Your task to perform on an android device: open app "WhatsApp Messenger" Image 0: 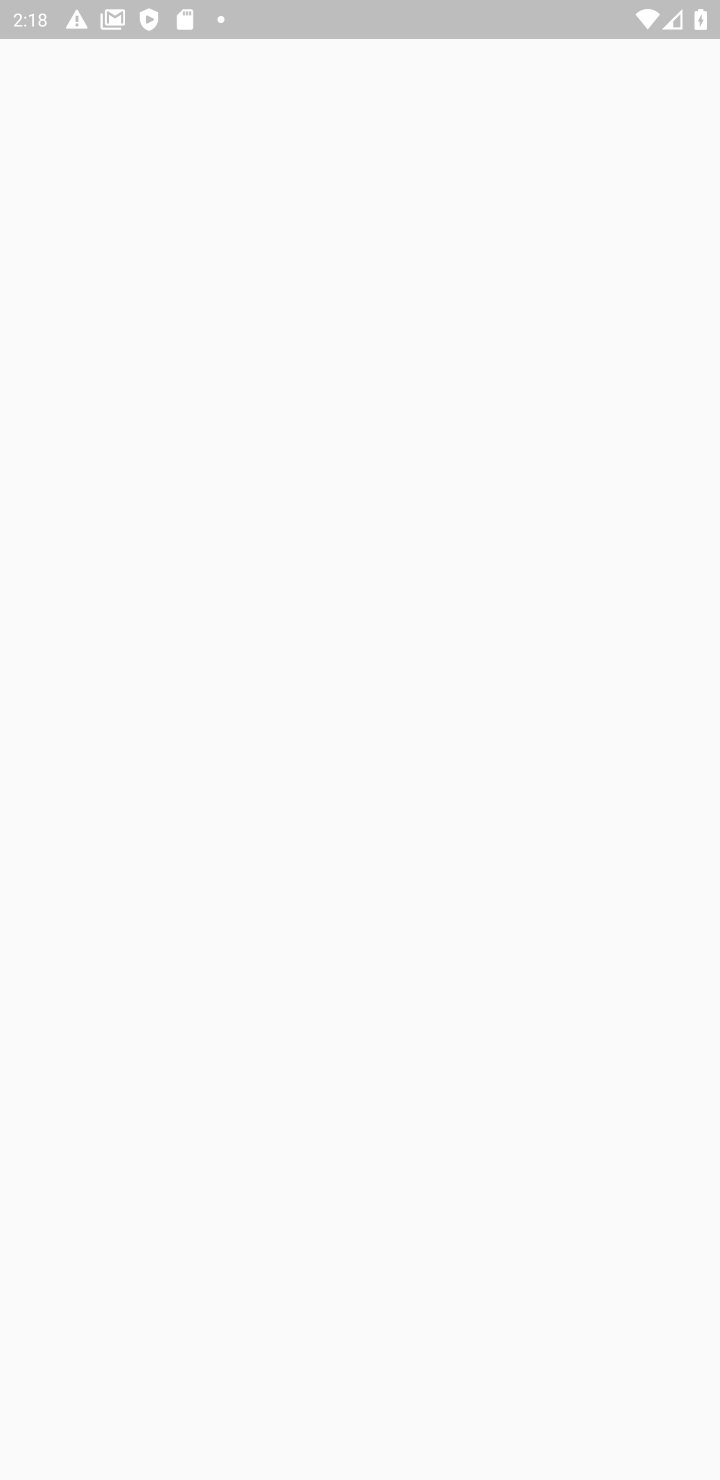
Step 0: press back button
Your task to perform on an android device: open app "WhatsApp Messenger" Image 1: 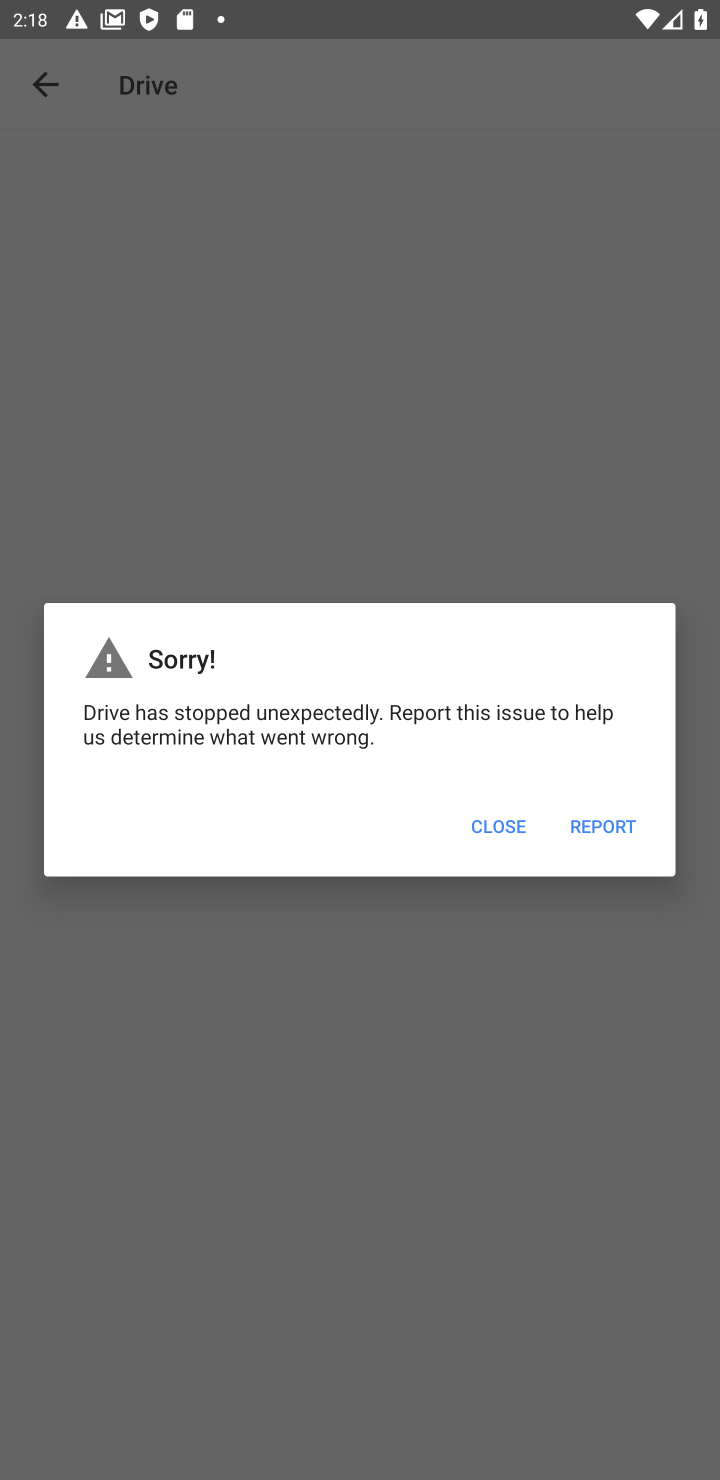
Step 1: press home button
Your task to perform on an android device: open app "WhatsApp Messenger" Image 2: 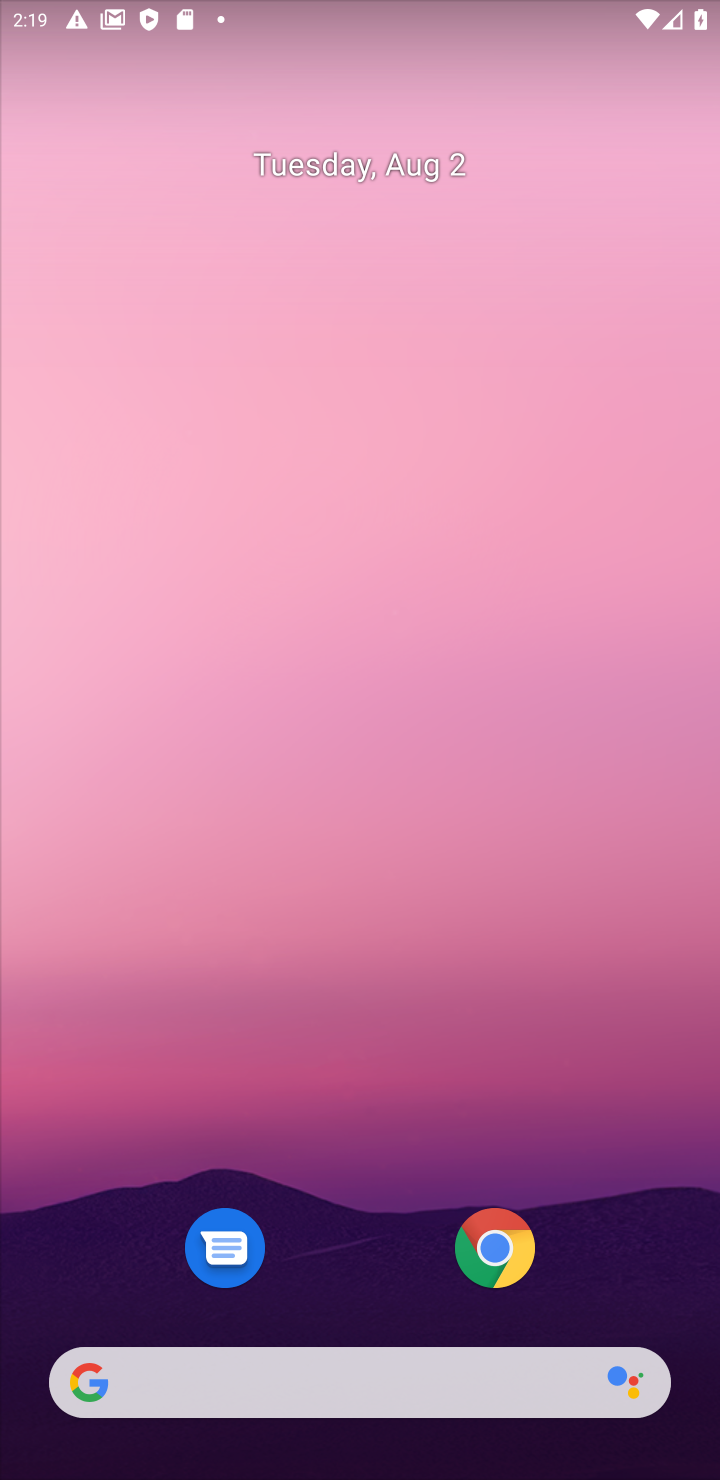
Step 2: drag from (330, 1230) to (340, 247)
Your task to perform on an android device: open app "WhatsApp Messenger" Image 3: 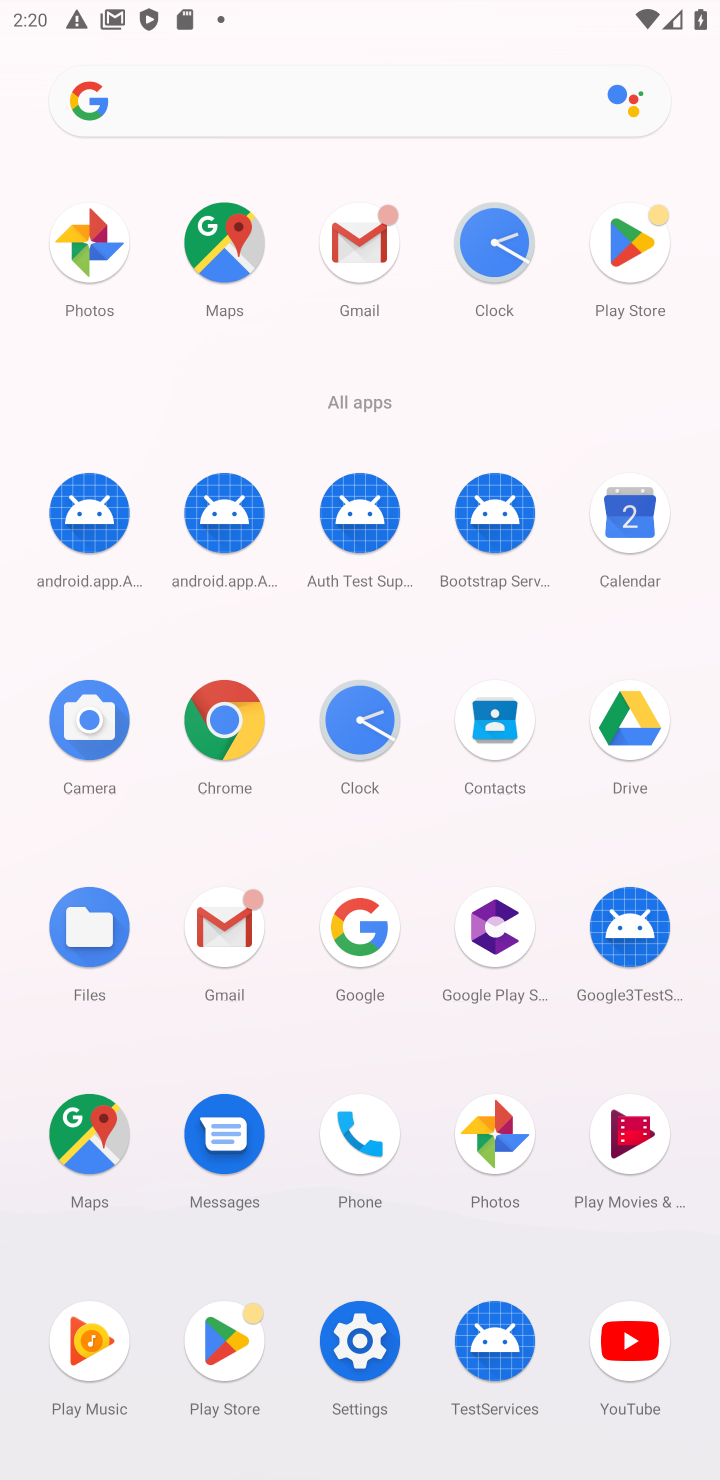
Step 3: click (221, 1354)
Your task to perform on an android device: open app "WhatsApp Messenger" Image 4: 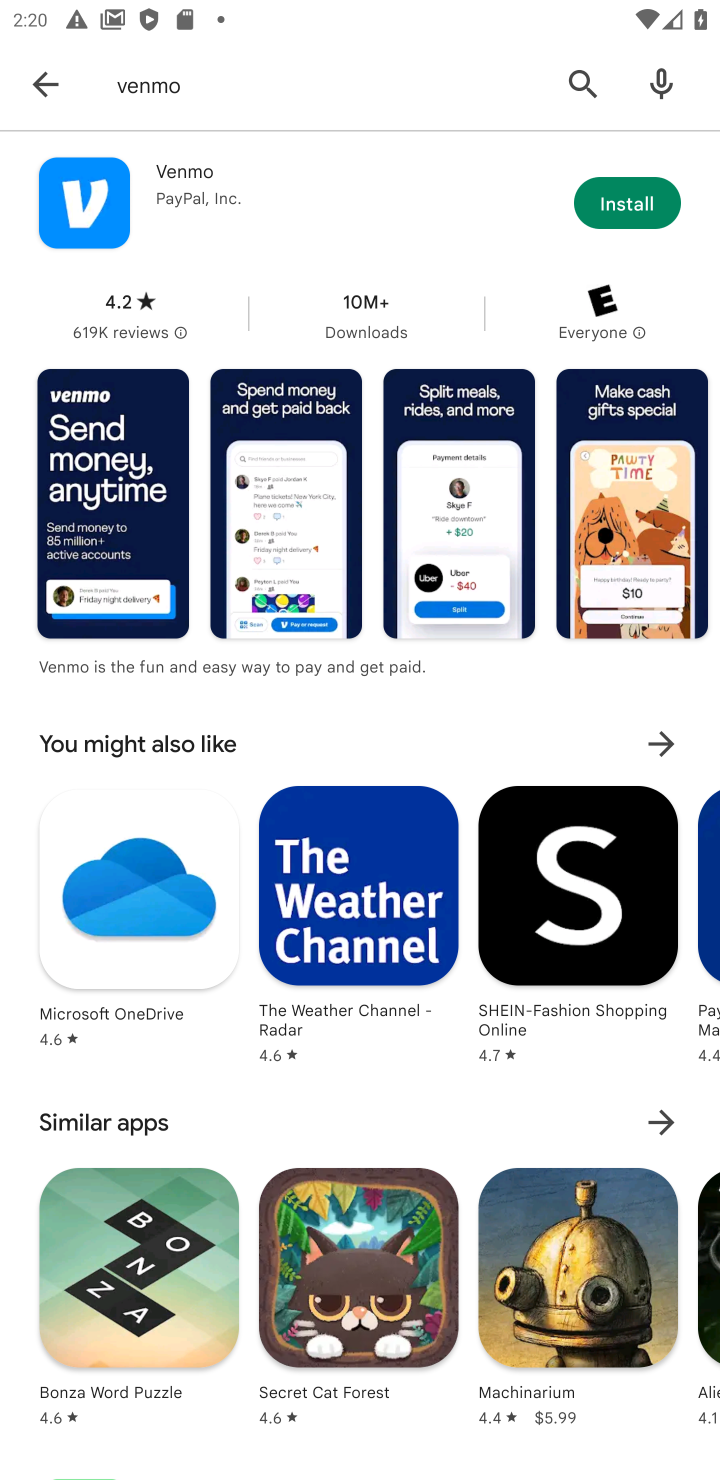
Step 4: click (26, 94)
Your task to perform on an android device: open app "WhatsApp Messenger" Image 5: 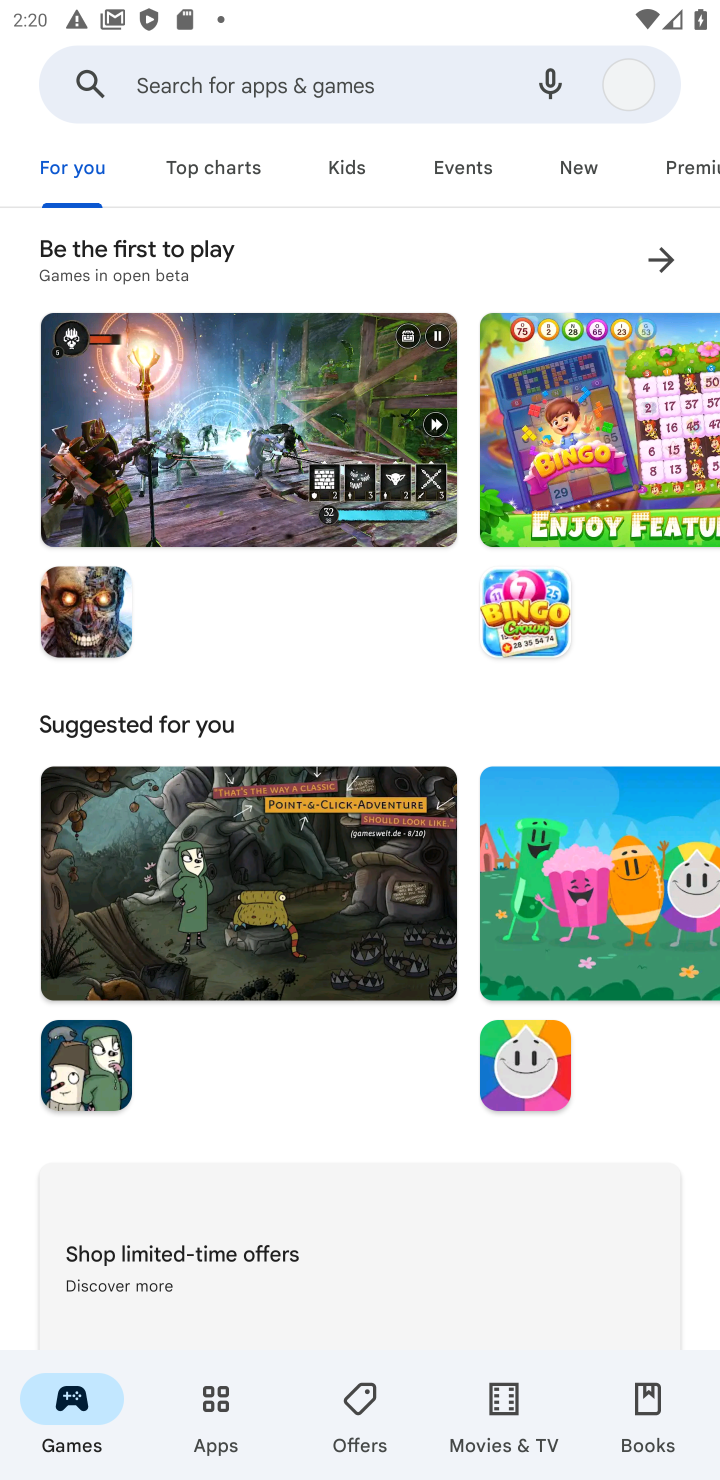
Step 5: click (163, 96)
Your task to perform on an android device: open app "WhatsApp Messenger" Image 6: 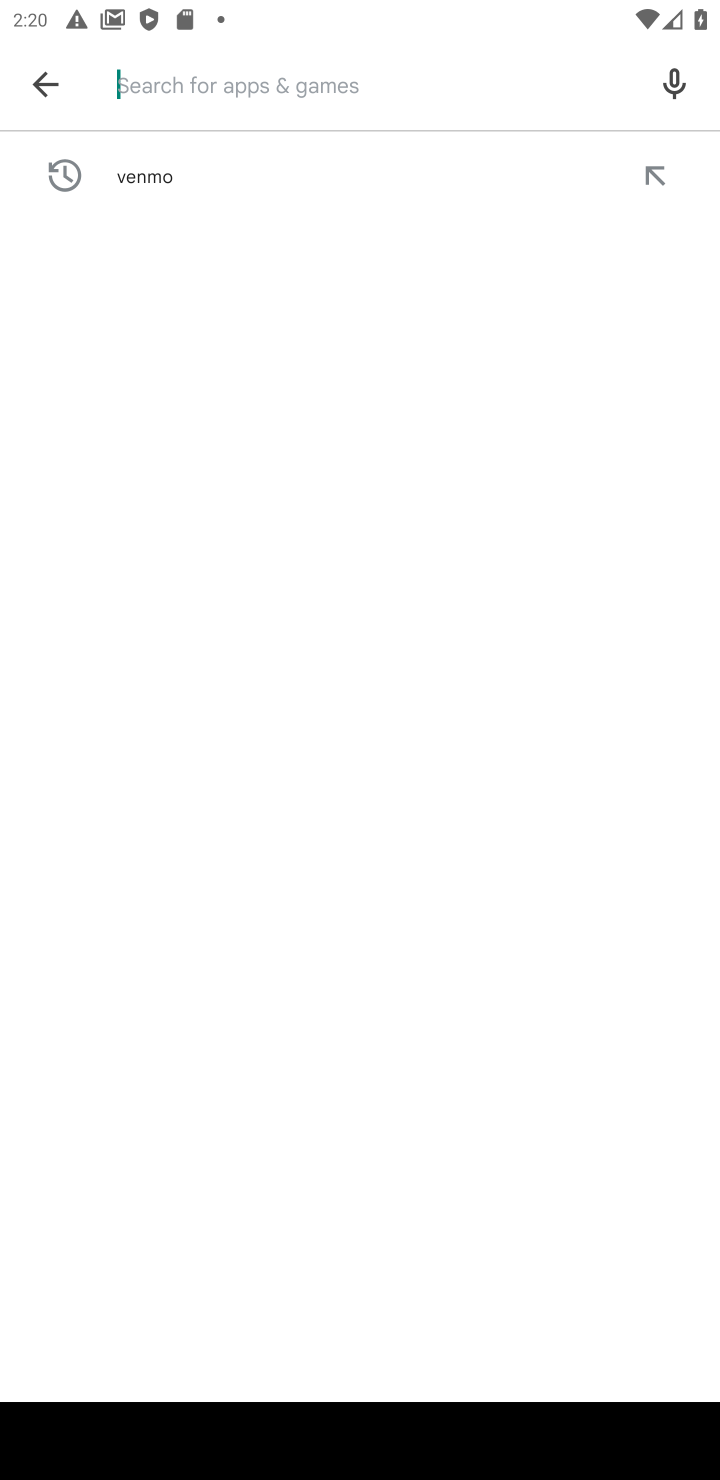
Step 6: type "WhatsApp Messenge"
Your task to perform on an android device: open app "WhatsApp Messenger" Image 7: 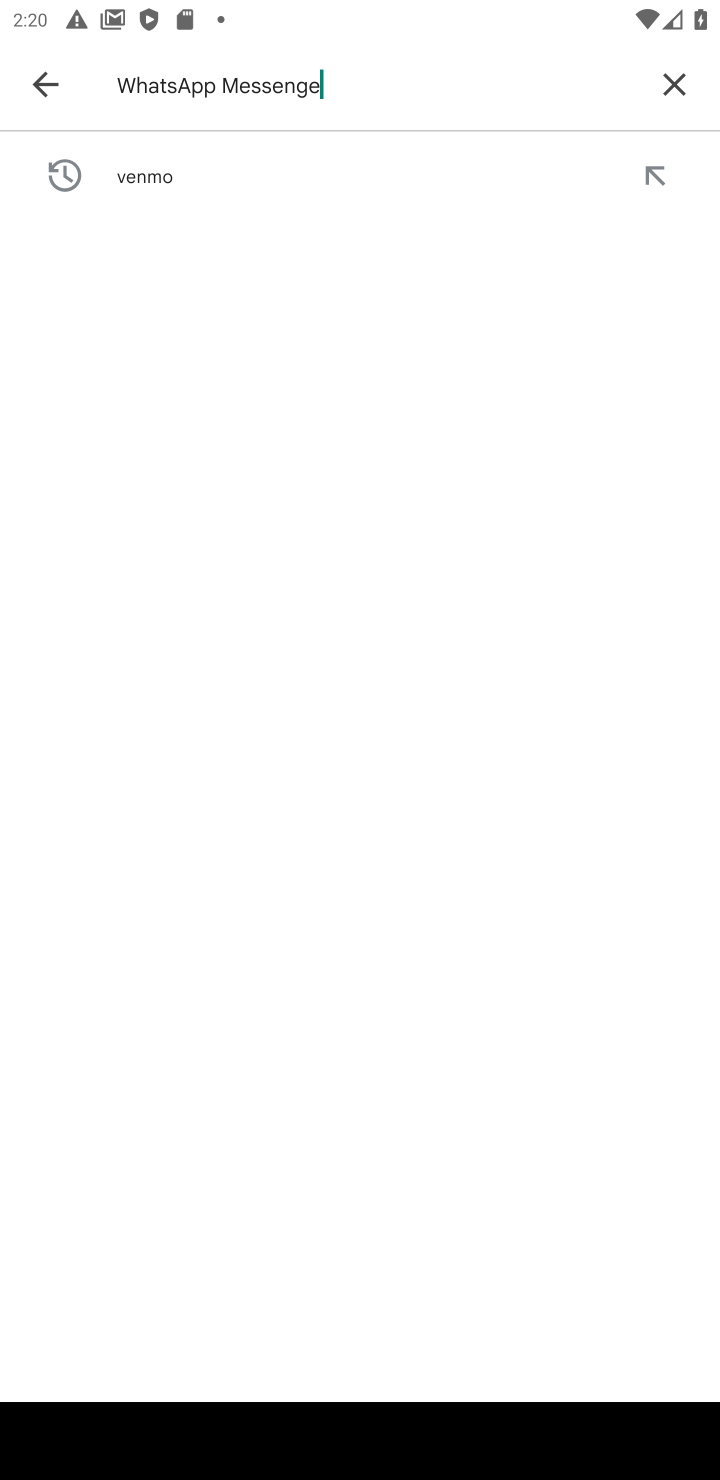
Step 7: type ""
Your task to perform on an android device: open app "WhatsApp Messenger" Image 8: 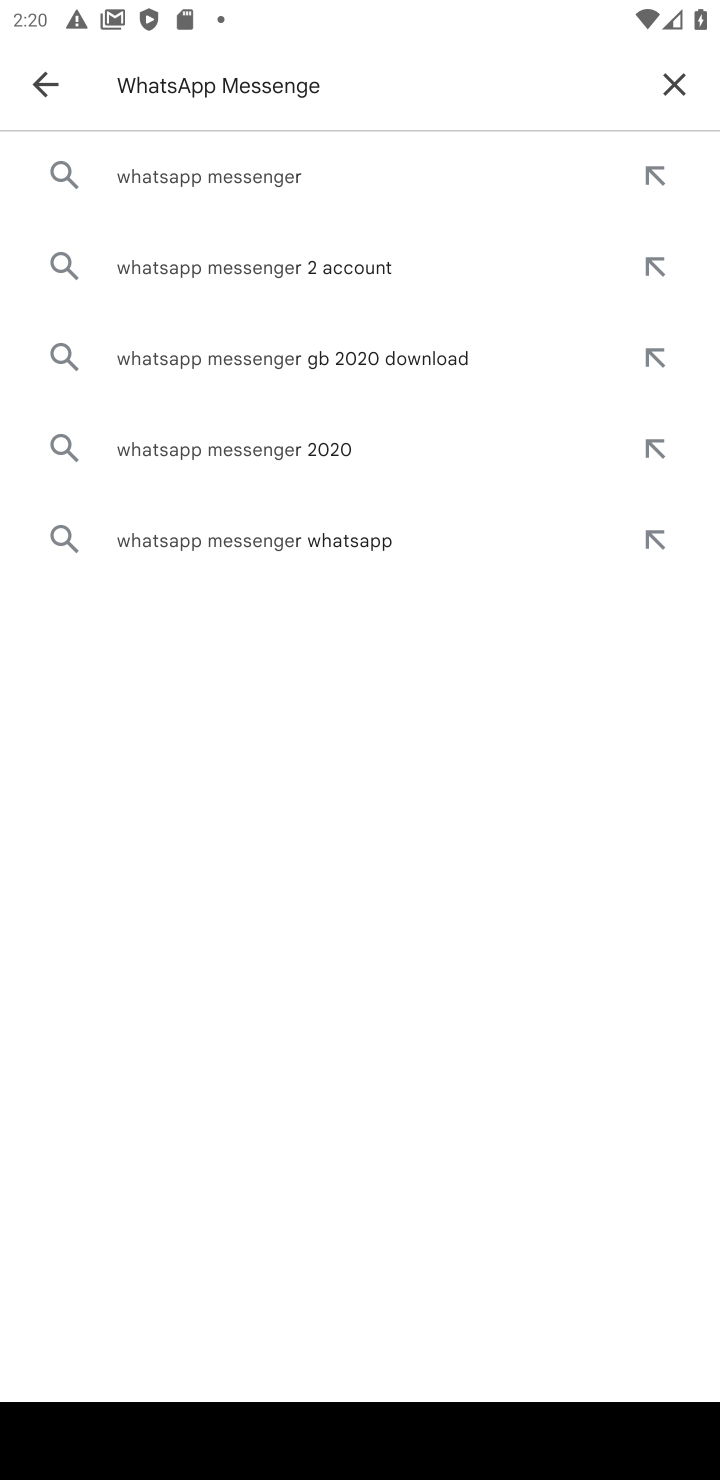
Step 8: click (334, 190)
Your task to perform on an android device: open app "WhatsApp Messenger" Image 9: 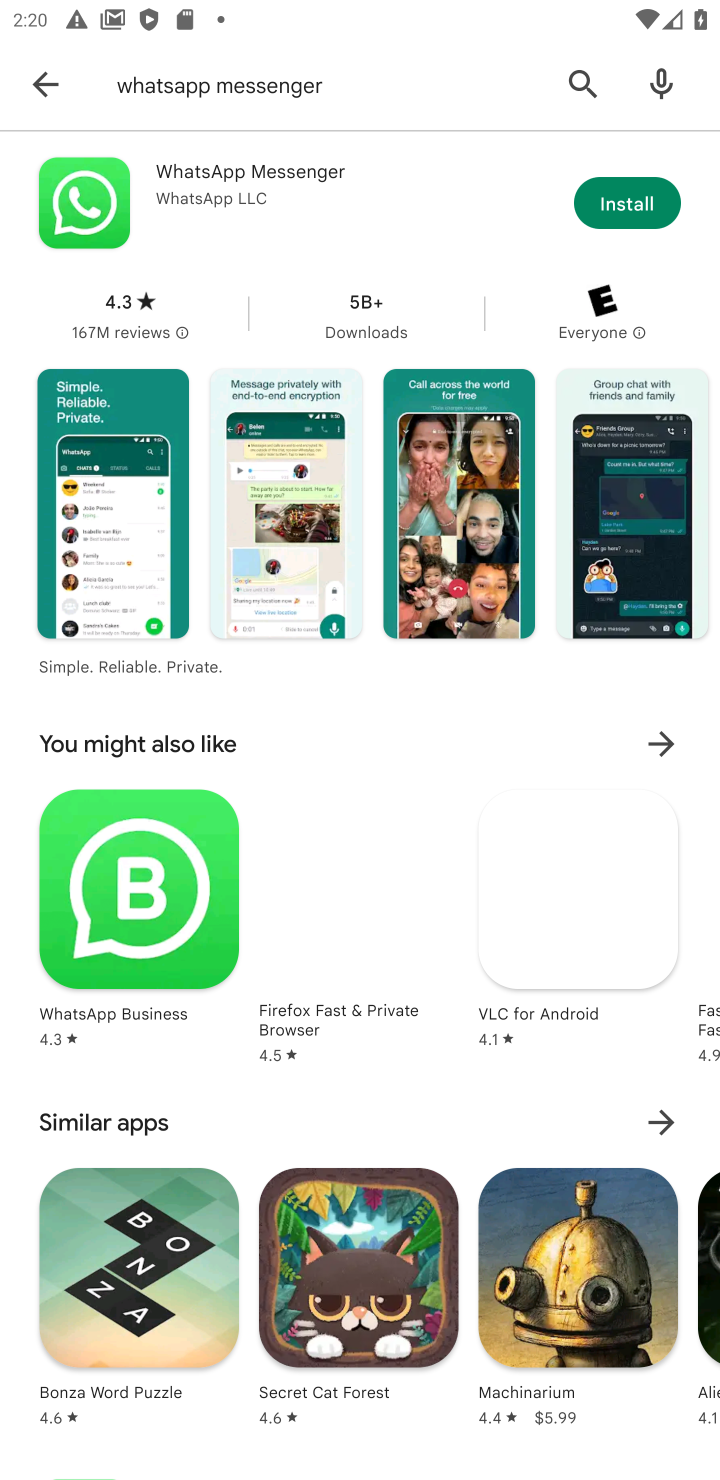
Step 9: click (656, 212)
Your task to perform on an android device: open app "WhatsApp Messenger" Image 10: 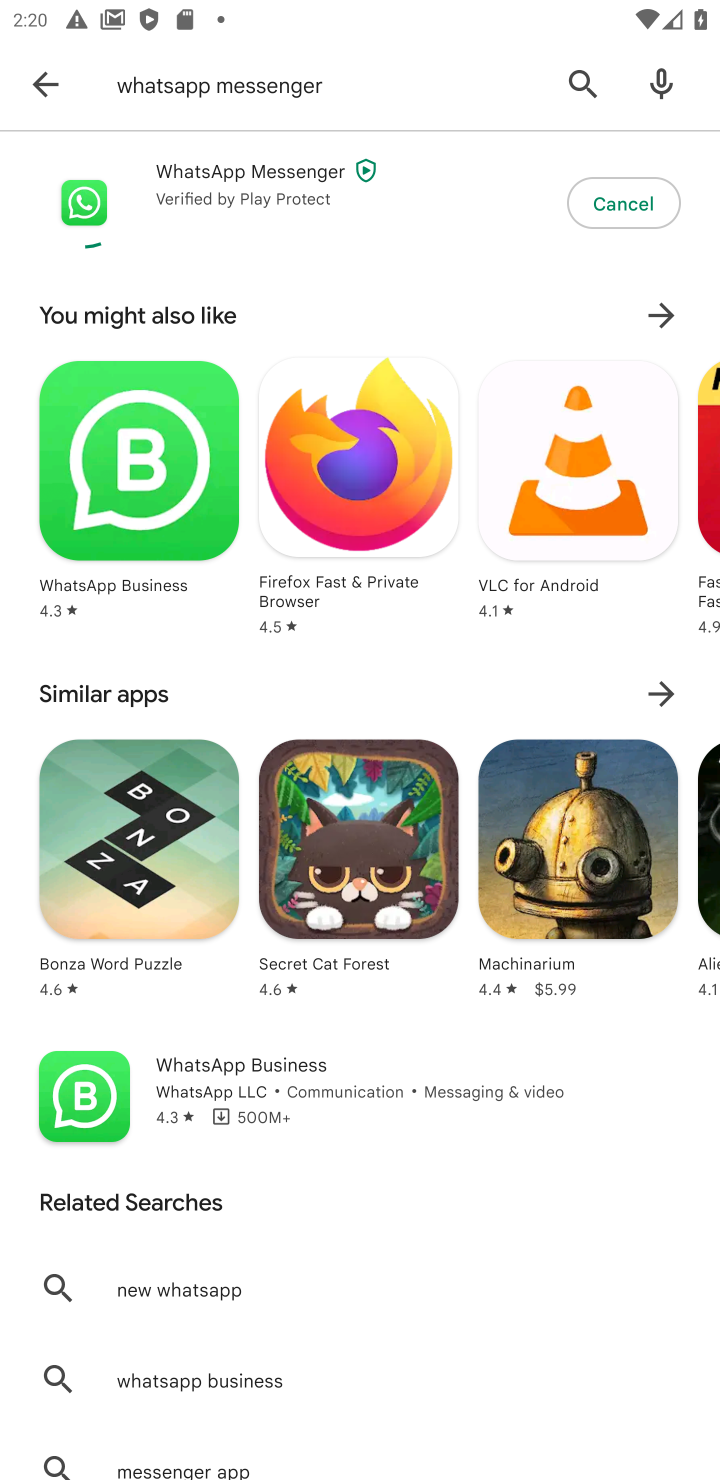
Step 10: click (650, 207)
Your task to perform on an android device: open app "WhatsApp Messenger" Image 11: 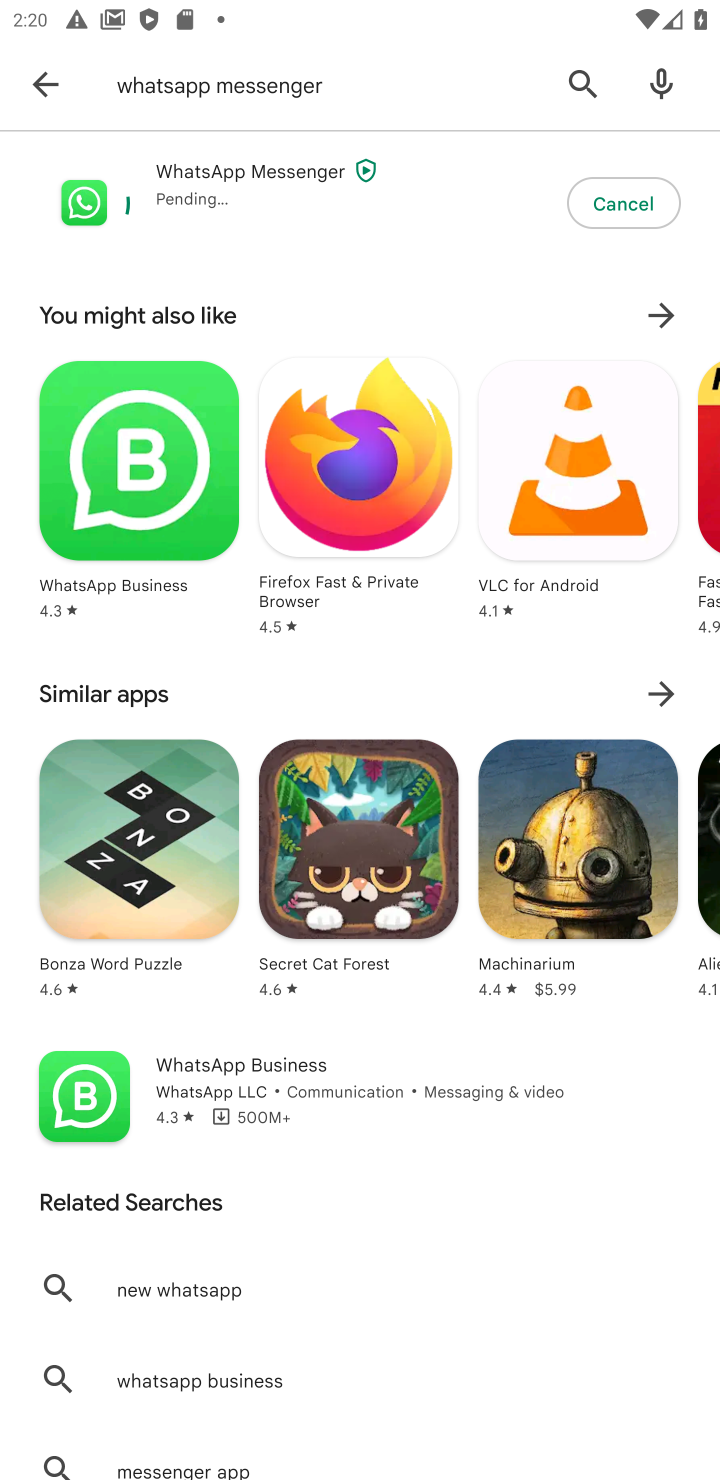
Step 11: click (652, 226)
Your task to perform on an android device: open app "WhatsApp Messenger" Image 12: 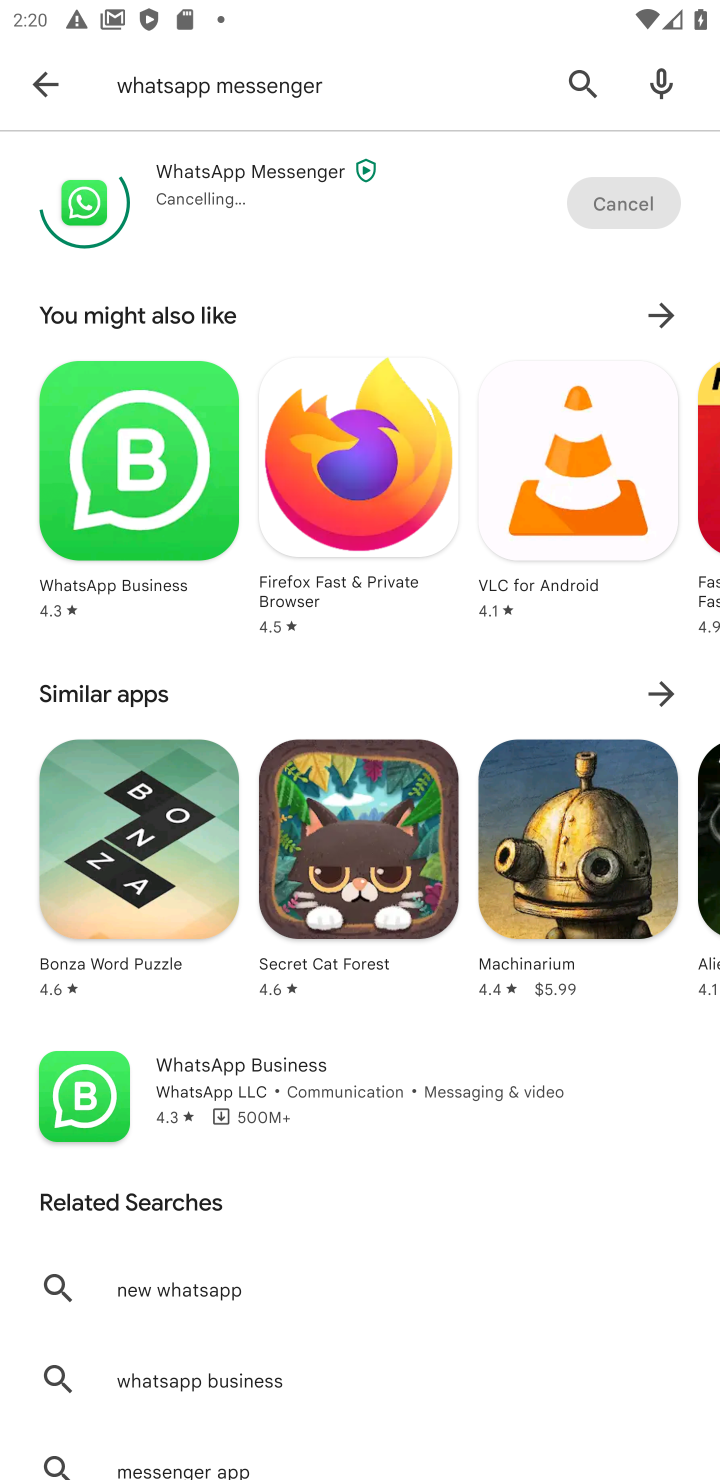
Step 12: click (650, 209)
Your task to perform on an android device: open app "WhatsApp Messenger" Image 13: 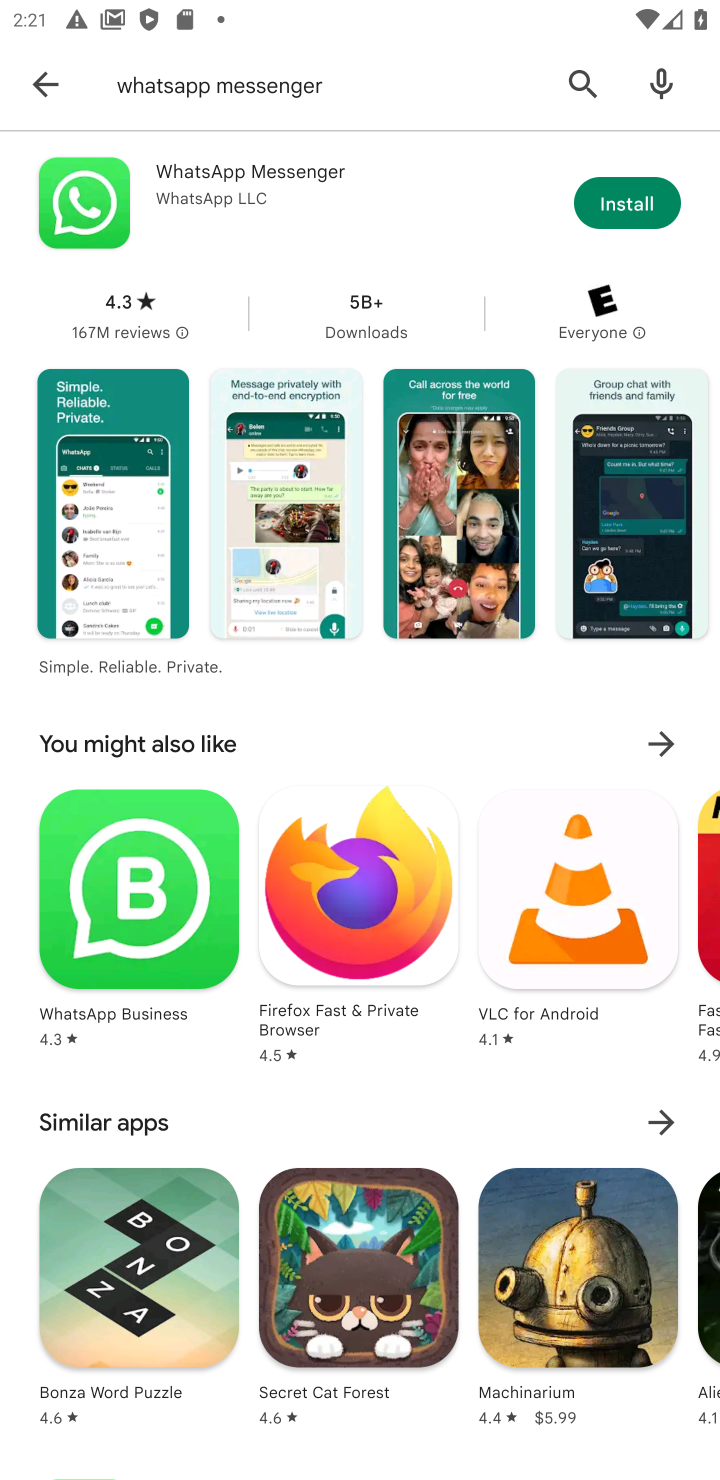
Step 13: task complete